Your task to perform on an android device: Open Reddit.com Image 0: 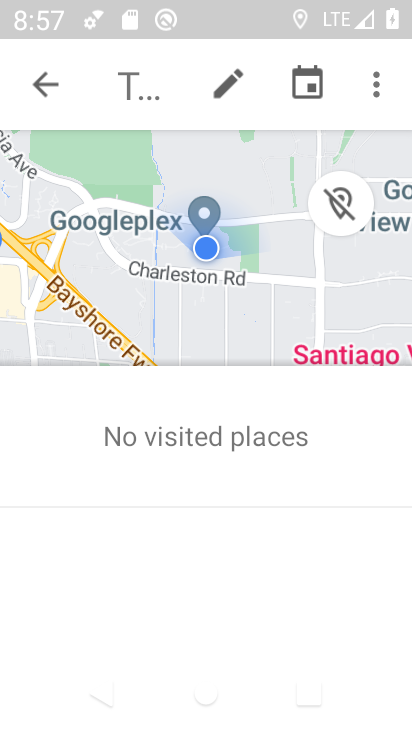
Step 0: press home button
Your task to perform on an android device: Open Reddit.com Image 1: 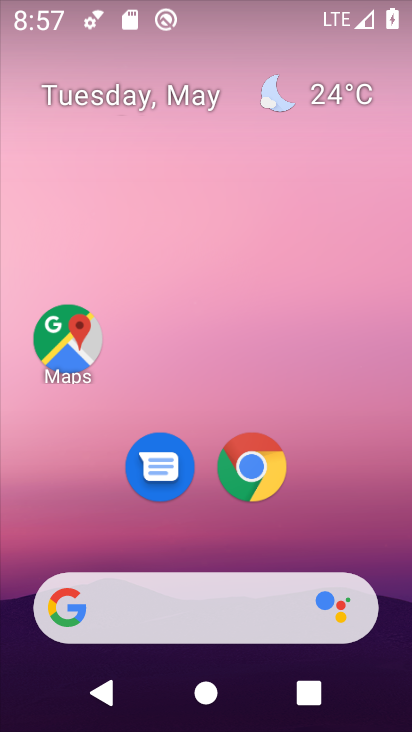
Step 1: click (236, 460)
Your task to perform on an android device: Open Reddit.com Image 2: 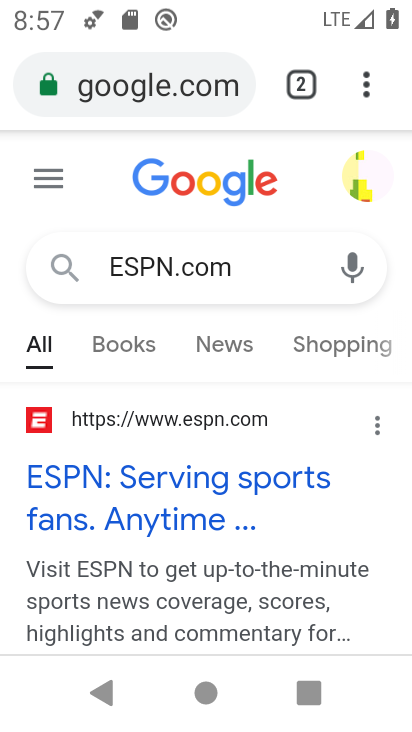
Step 2: click (233, 80)
Your task to perform on an android device: Open Reddit.com Image 3: 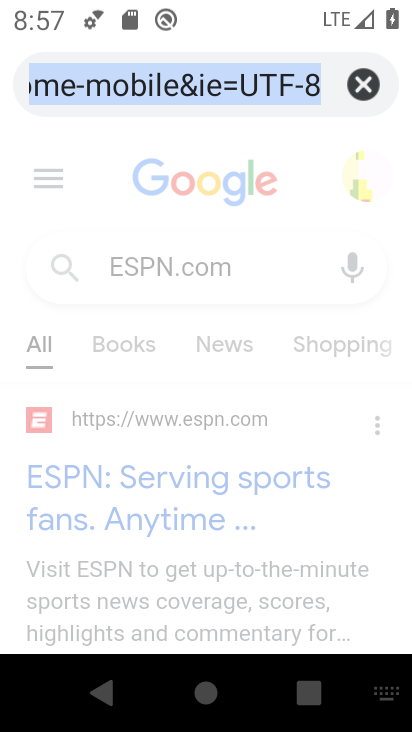
Step 3: click (368, 77)
Your task to perform on an android device: Open Reddit.com Image 4: 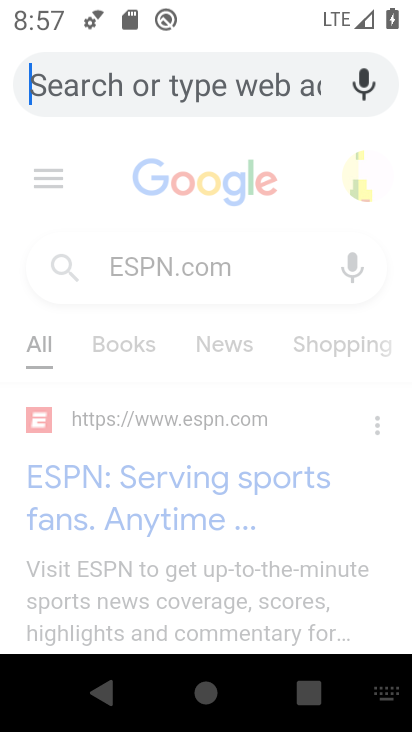
Step 4: type "Reddit.com"
Your task to perform on an android device: Open Reddit.com Image 5: 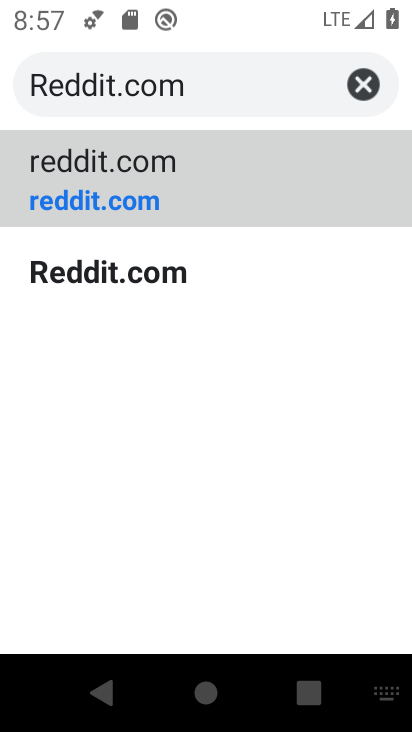
Step 5: click (78, 282)
Your task to perform on an android device: Open Reddit.com Image 6: 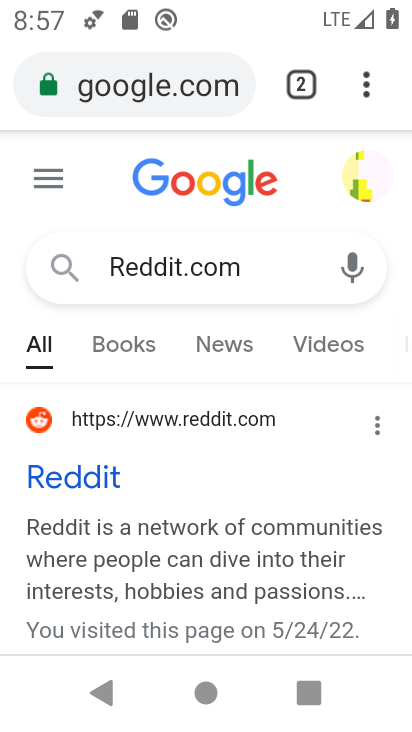
Step 6: task complete